Your task to perform on an android device: Open calendar and show me the second week of next month Image 0: 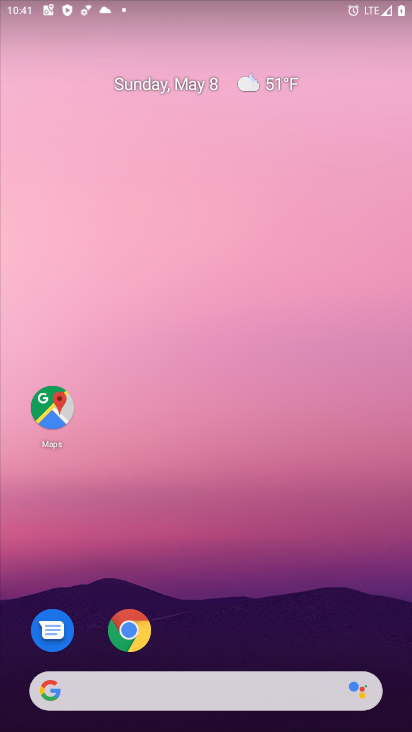
Step 0: drag from (345, 607) to (248, 41)
Your task to perform on an android device: Open calendar and show me the second week of next month Image 1: 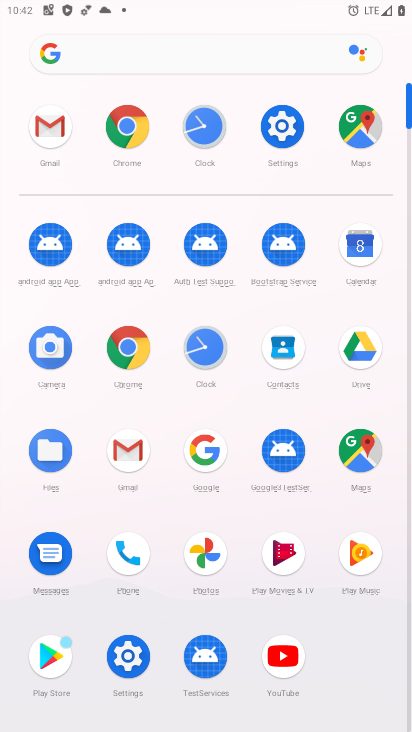
Step 1: click (367, 252)
Your task to perform on an android device: Open calendar and show me the second week of next month Image 2: 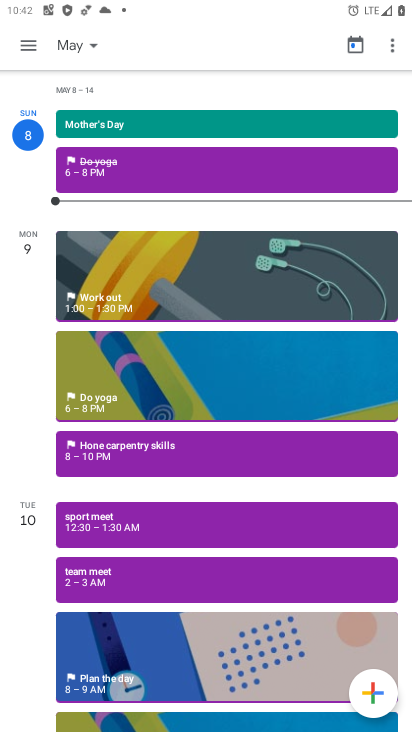
Step 2: click (72, 51)
Your task to perform on an android device: Open calendar and show me the second week of next month Image 3: 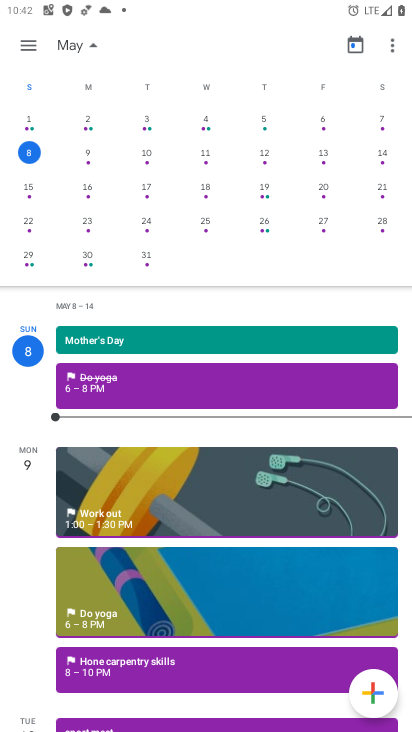
Step 3: drag from (316, 186) to (0, 155)
Your task to perform on an android device: Open calendar and show me the second week of next month Image 4: 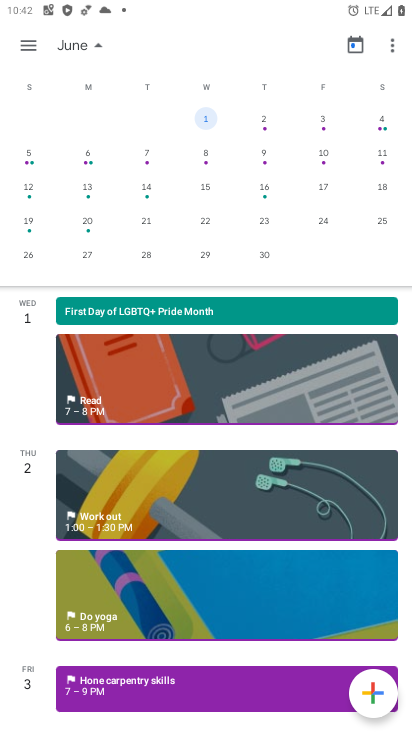
Step 4: click (98, 189)
Your task to perform on an android device: Open calendar and show me the second week of next month Image 5: 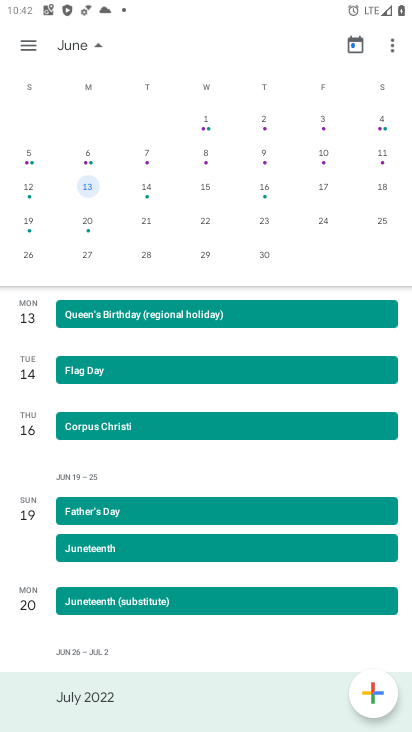
Step 5: task complete